Your task to perform on an android device: toggle improve location accuracy Image 0: 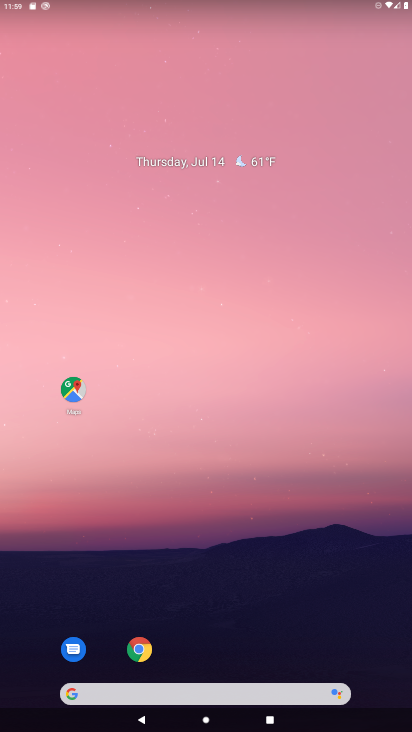
Step 0: drag from (244, 681) to (262, 2)
Your task to perform on an android device: toggle improve location accuracy Image 1: 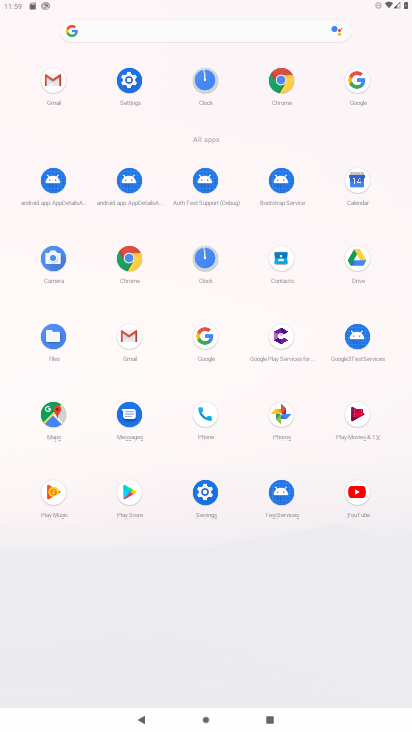
Step 1: click (130, 89)
Your task to perform on an android device: toggle improve location accuracy Image 2: 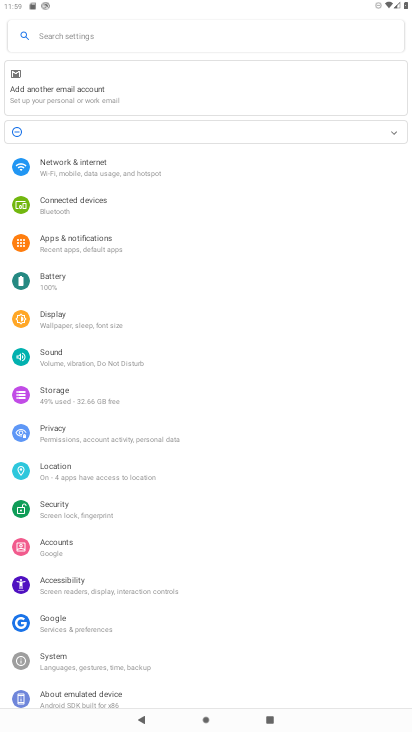
Step 2: click (74, 479)
Your task to perform on an android device: toggle improve location accuracy Image 3: 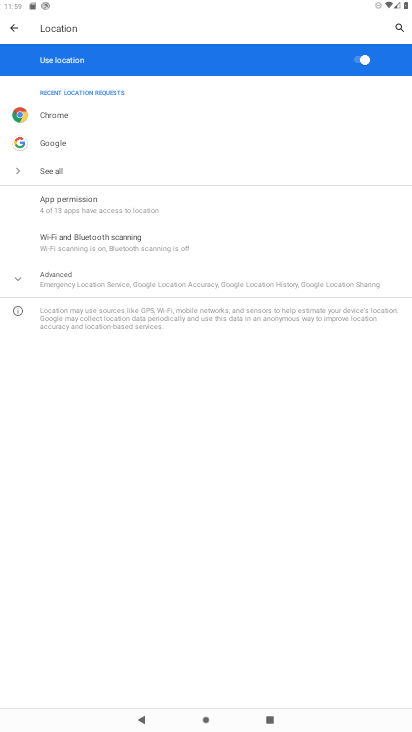
Step 3: click (18, 284)
Your task to perform on an android device: toggle improve location accuracy Image 4: 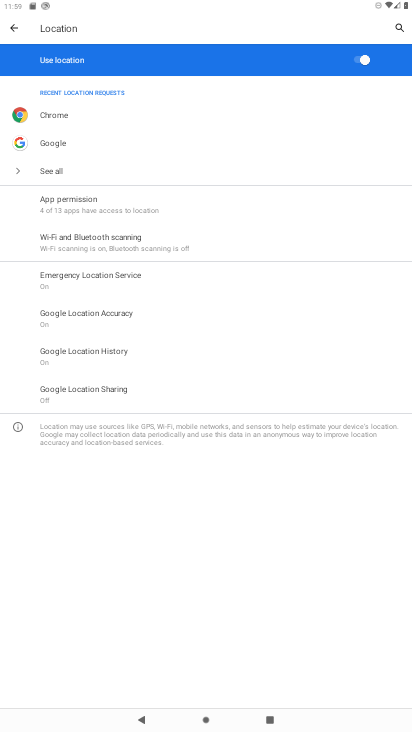
Step 4: click (40, 315)
Your task to perform on an android device: toggle improve location accuracy Image 5: 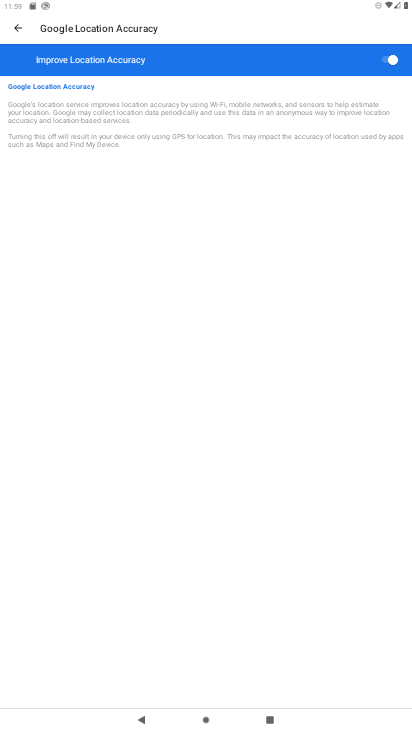
Step 5: click (397, 59)
Your task to perform on an android device: toggle improve location accuracy Image 6: 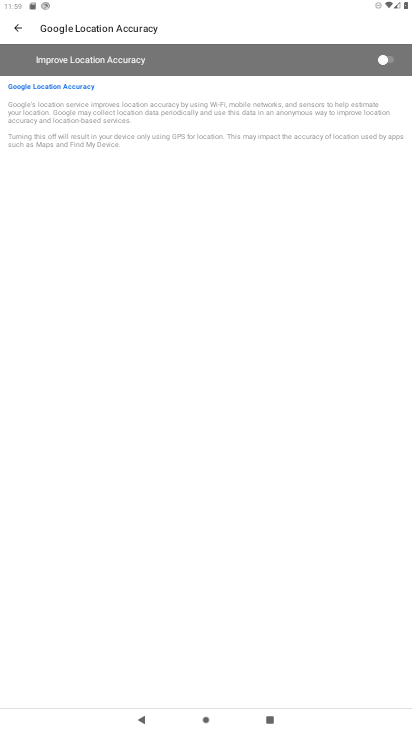
Step 6: task complete